Your task to perform on an android device: Go to Reddit.com Image 0: 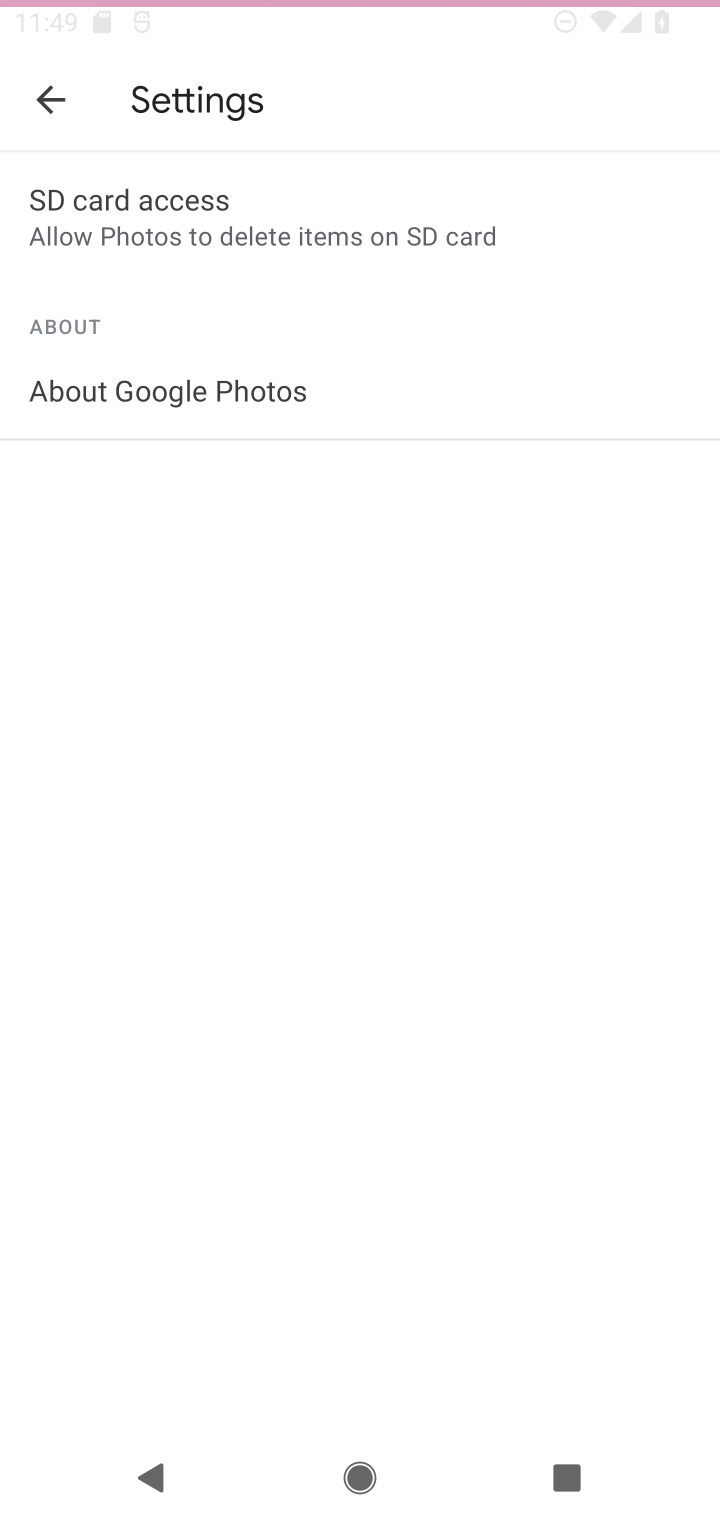
Step 0: press home button
Your task to perform on an android device: Go to Reddit.com Image 1: 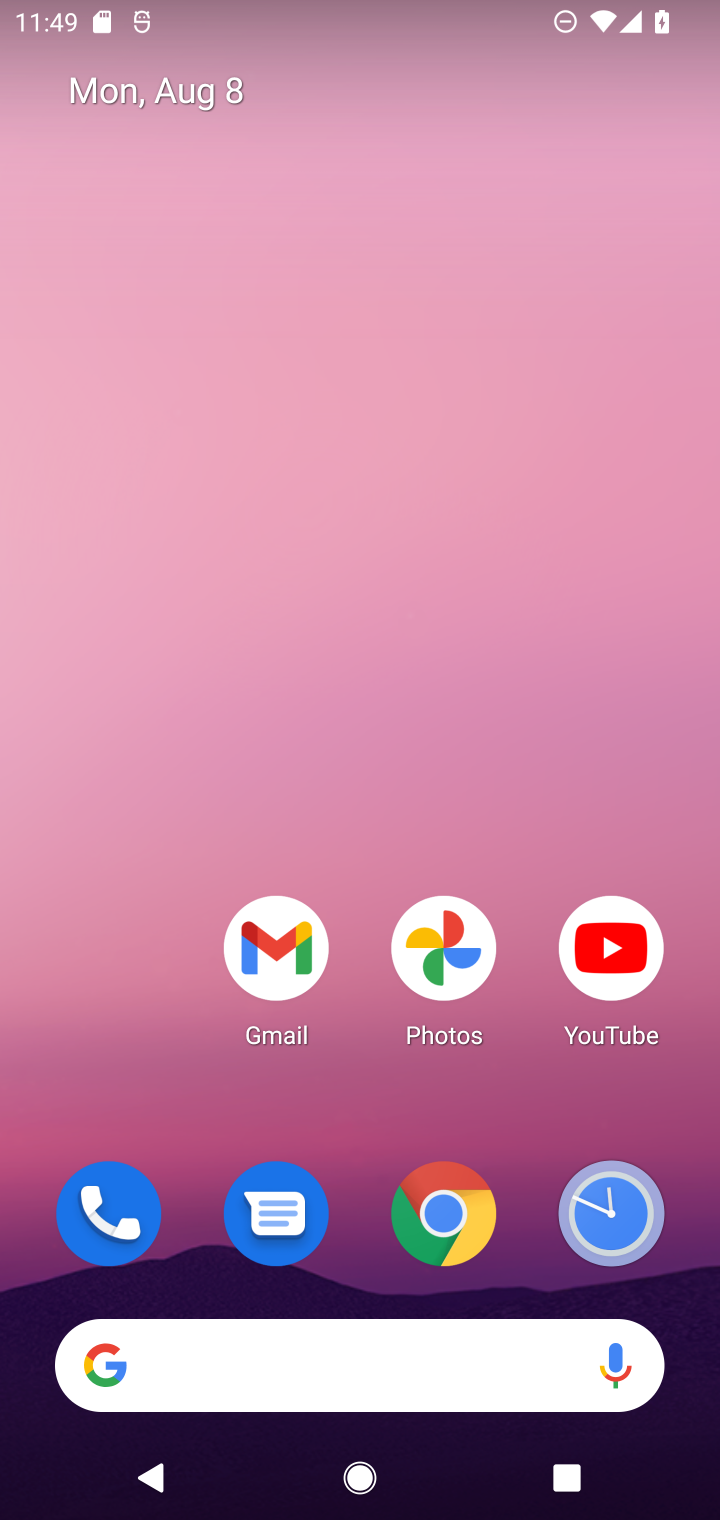
Step 1: click (437, 1200)
Your task to perform on an android device: Go to Reddit.com Image 2: 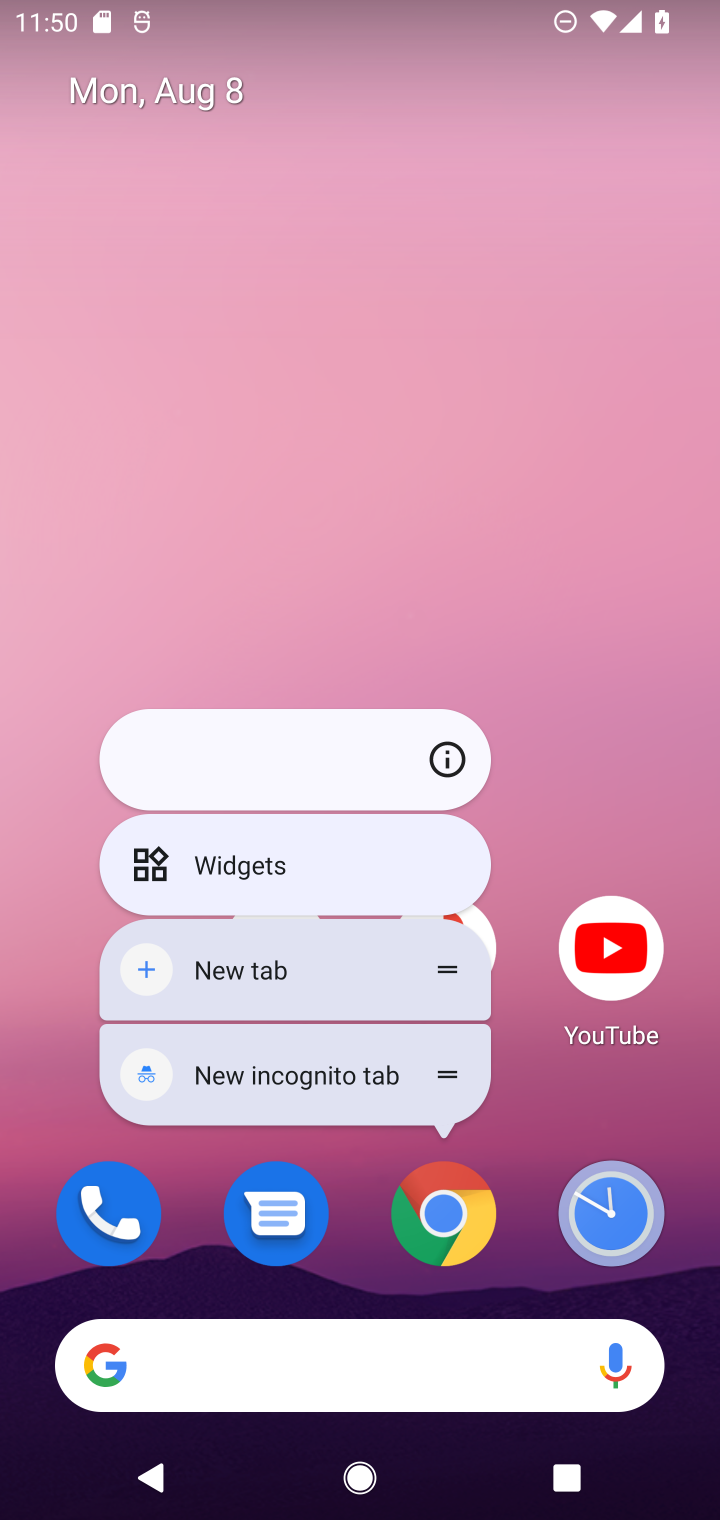
Step 2: click (549, 1111)
Your task to perform on an android device: Go to Reddit.com Image 3: 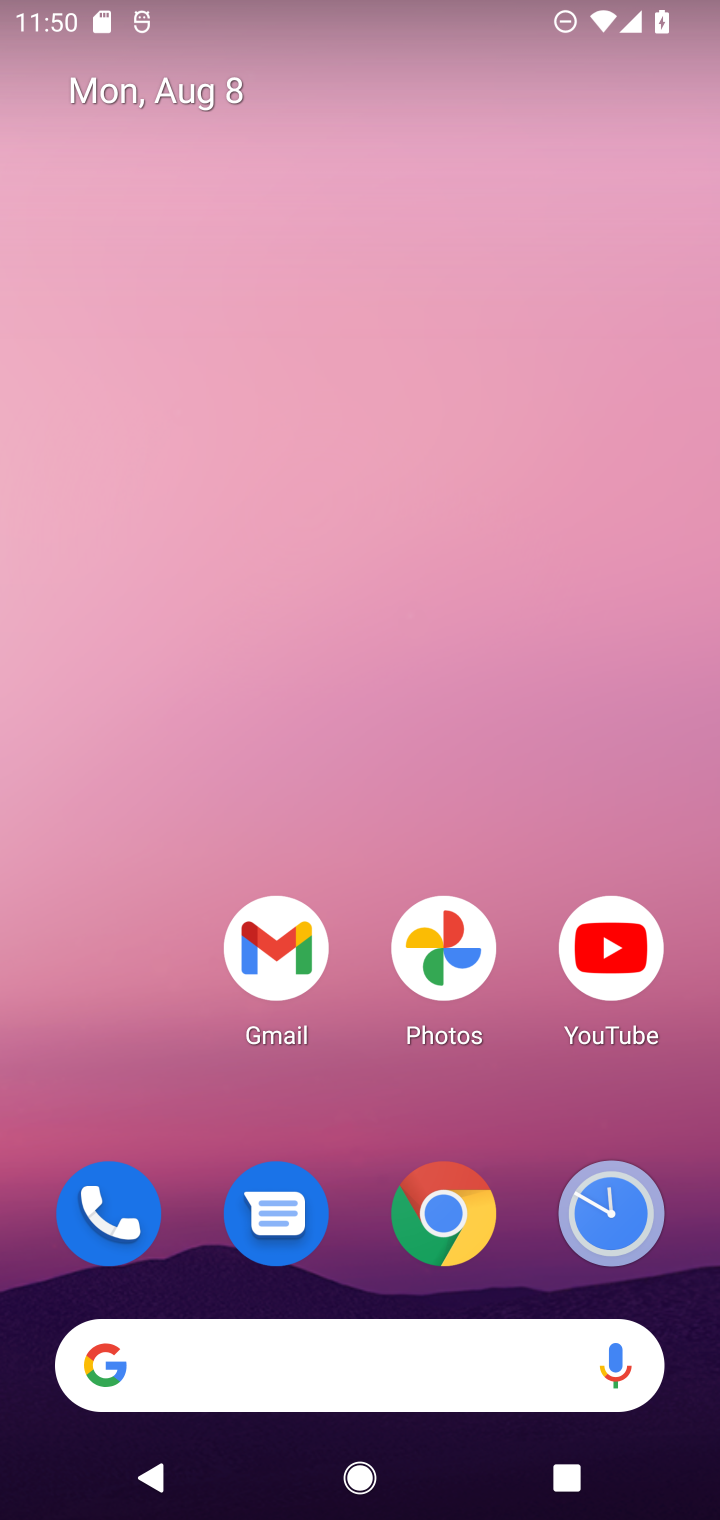
Step 3: drag from (529, 916) to (515, 4)
Your task to perform on an android device: Go to Reddit.com Image 4: 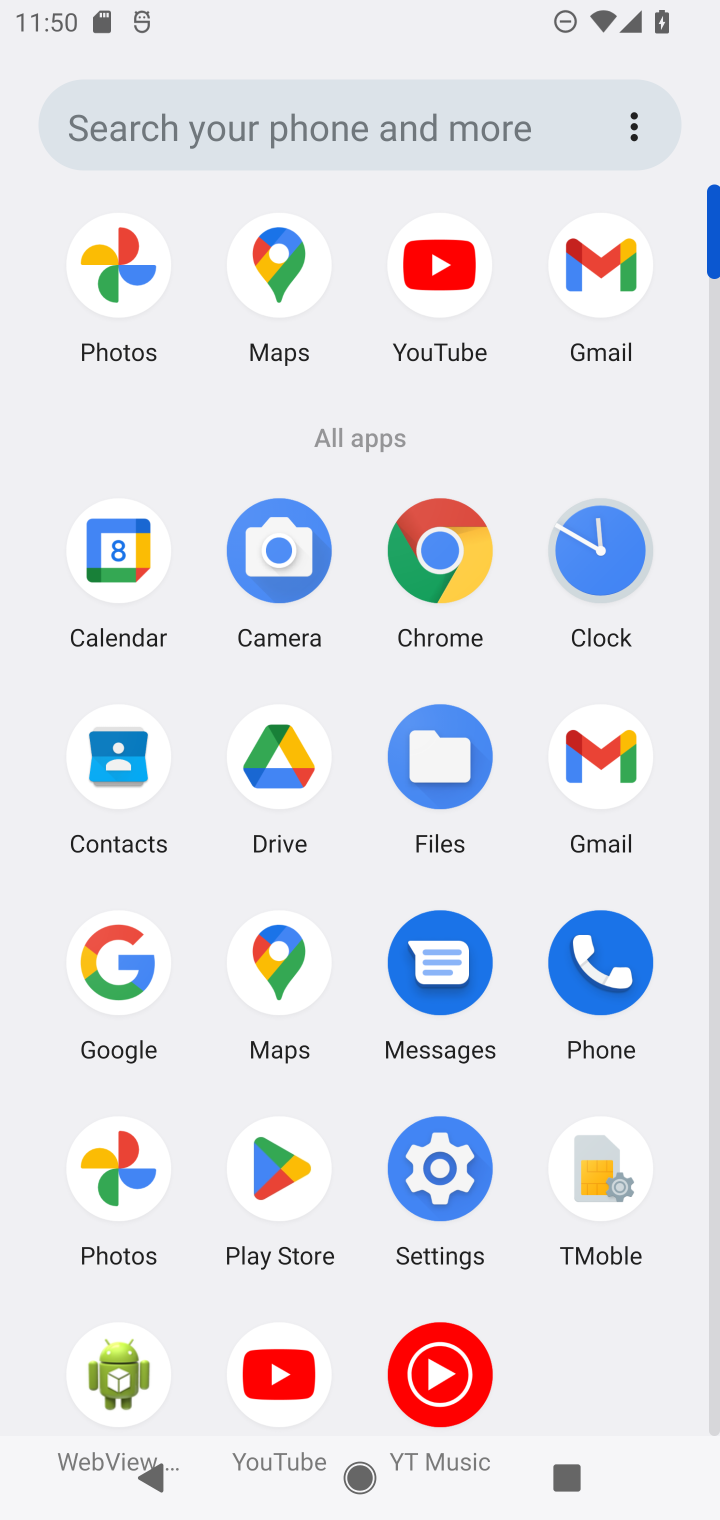
Step 4: click (435, 539)
Your task to perform on an android device: Go to Reddit.com Image 5: 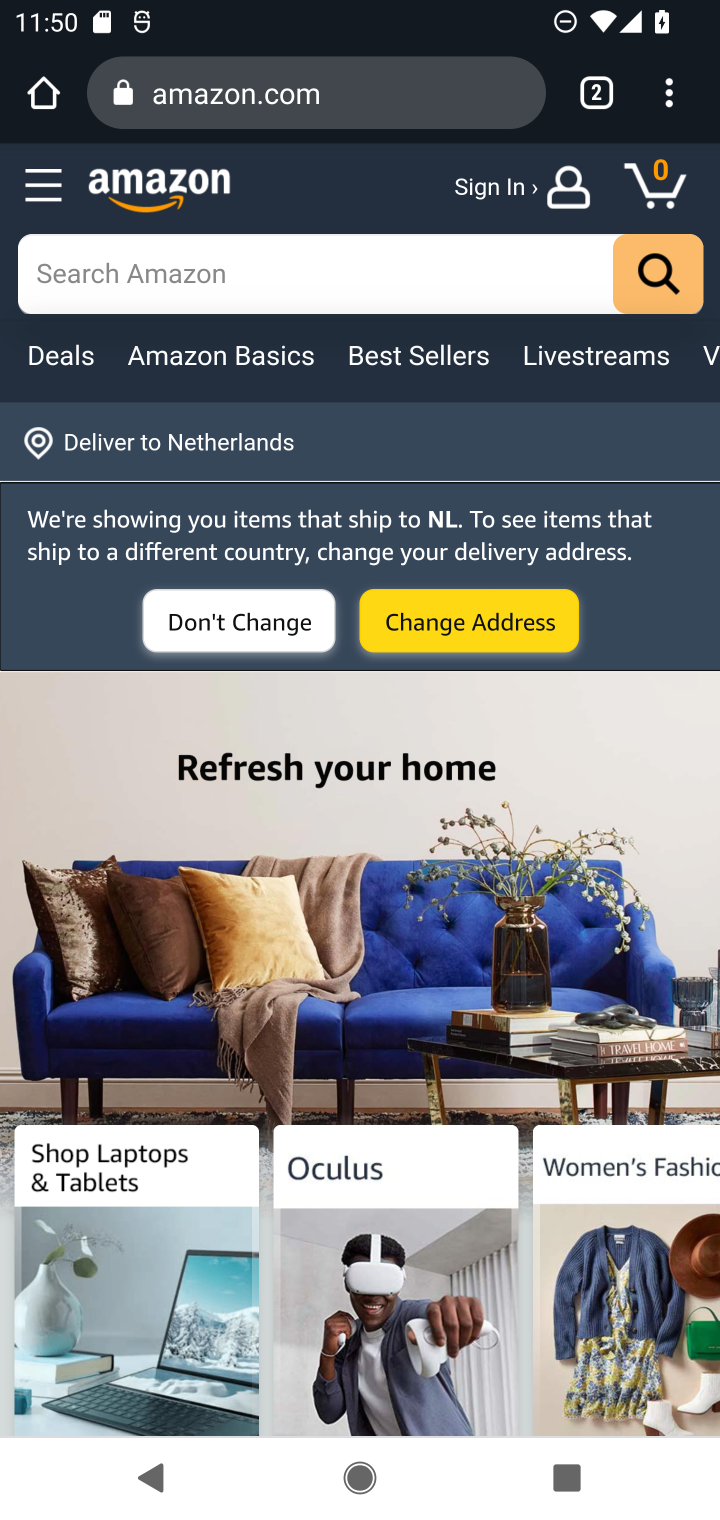
Step 5: click (611, 76)
Your task to perform on an android device: Go to Reddit.com Image 6: 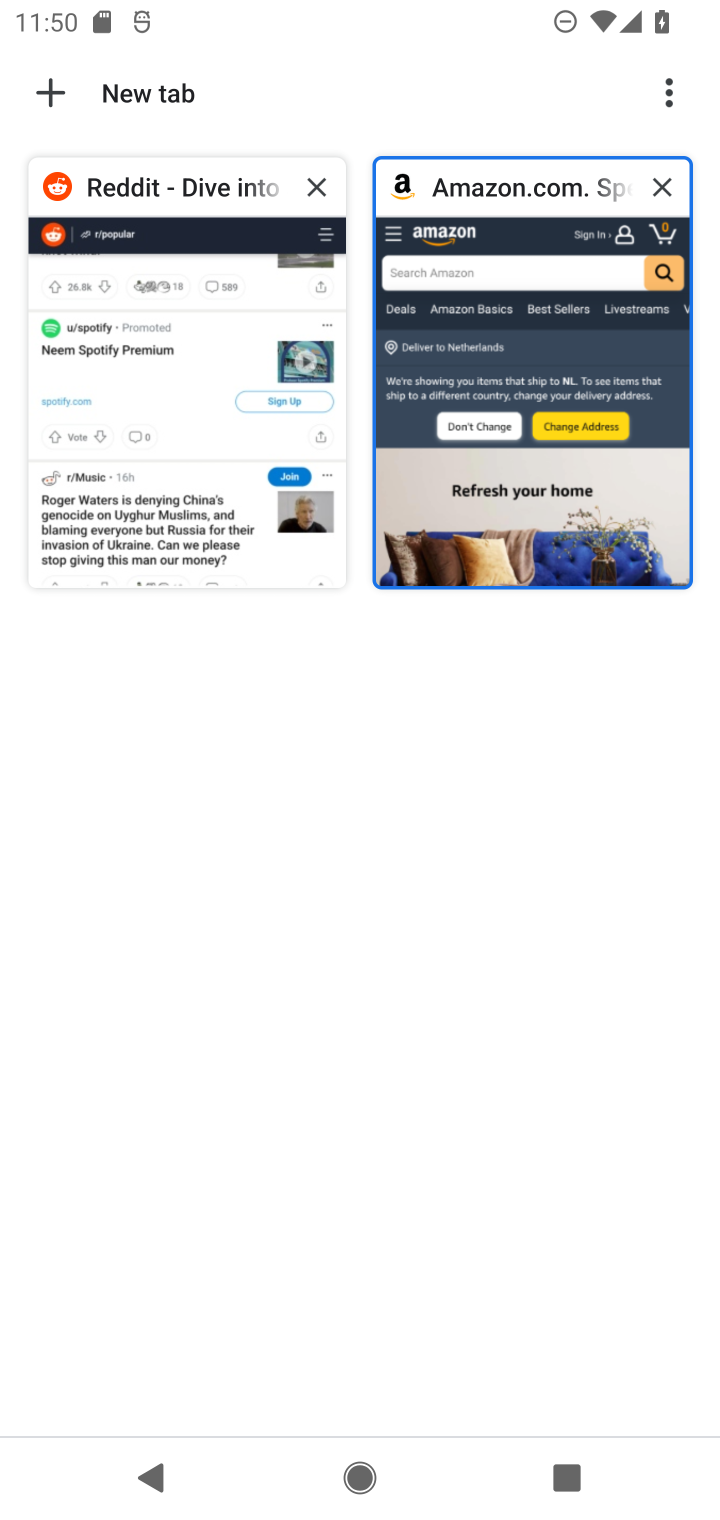
Step 6: click (132, 363)
Your task to perform on an android device: Go to Reddit.com Image 7: 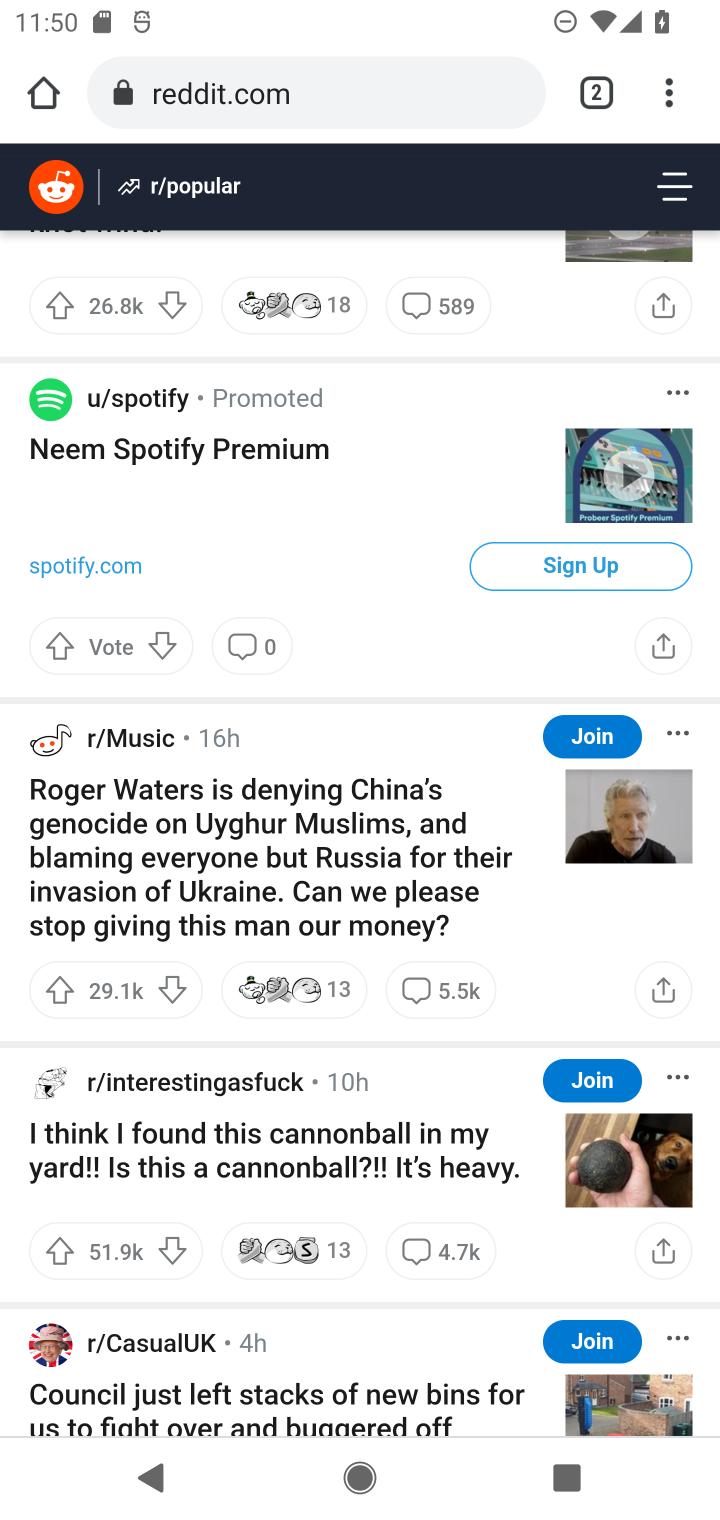
Step 7: drag from (371, 1319) to (454, 305)
Your task to perform on an android device: Go to Reddit.com Image 8: 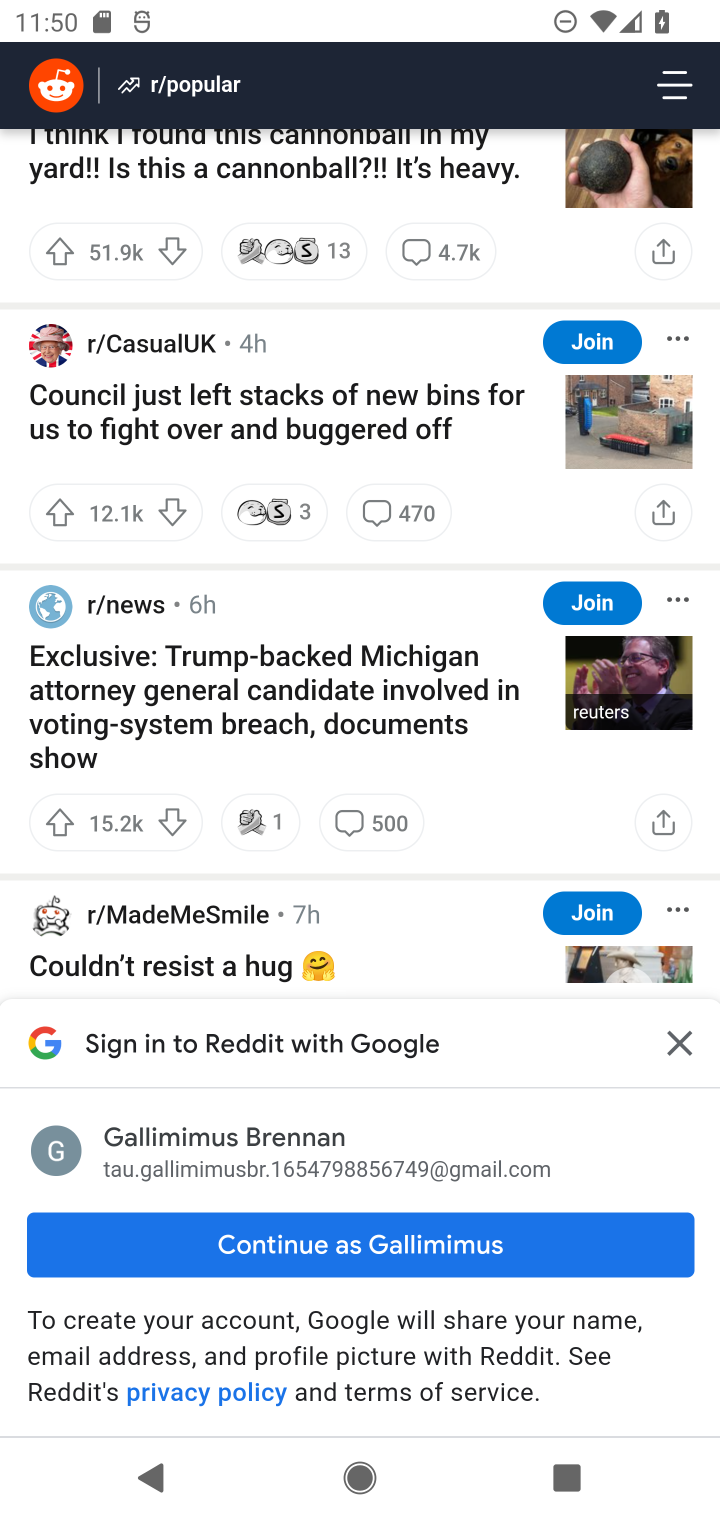
Step 8: click (372, 1258)
Your task to perform on an android device: Go to Reddit.com Image 9: 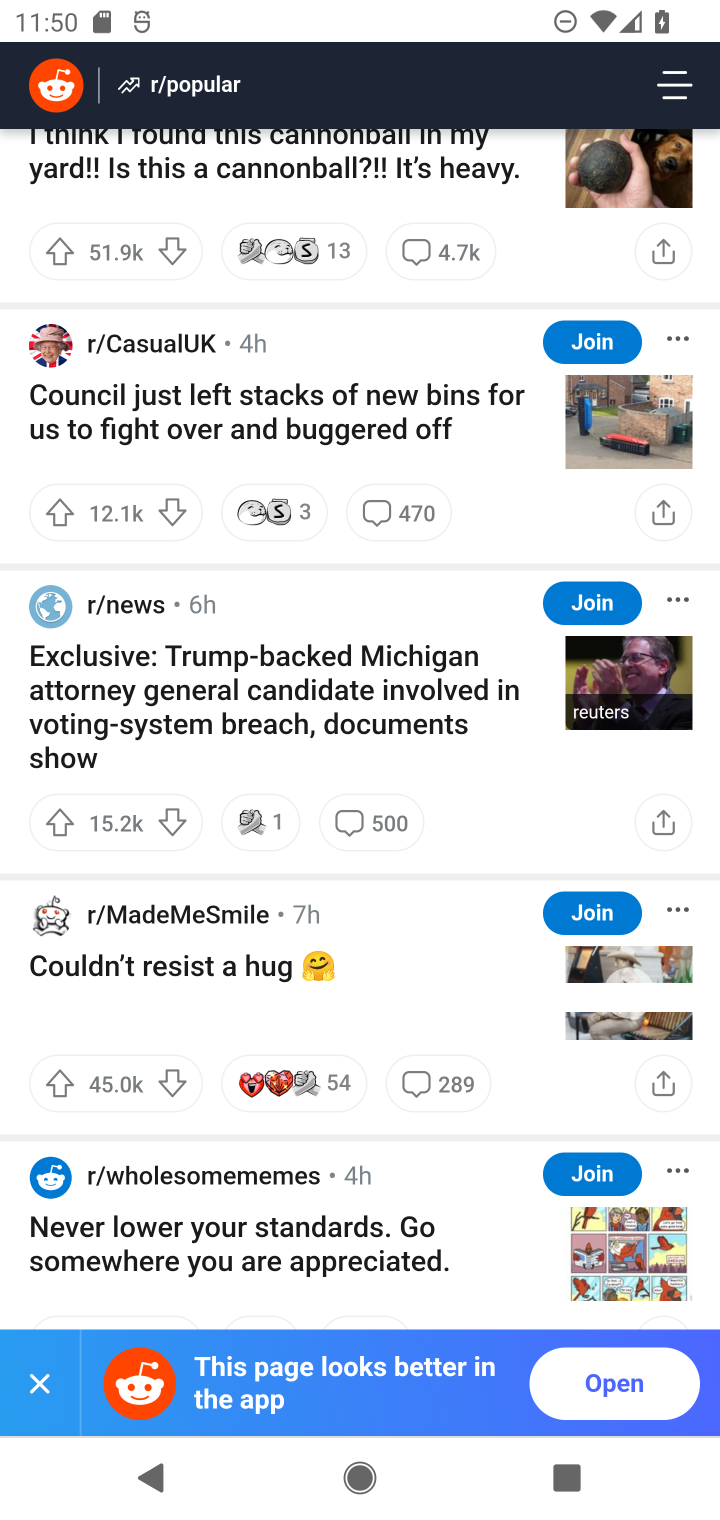
Step 9: task complete